Your task to perform on an android device: turn off improve location accuracy Image 0: 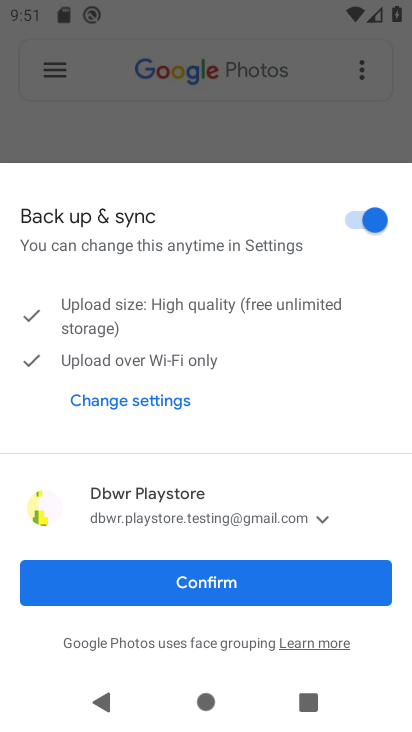
Step 0: press home button
Your task to perform on an android device: turn off improve location accuracy Image 1: 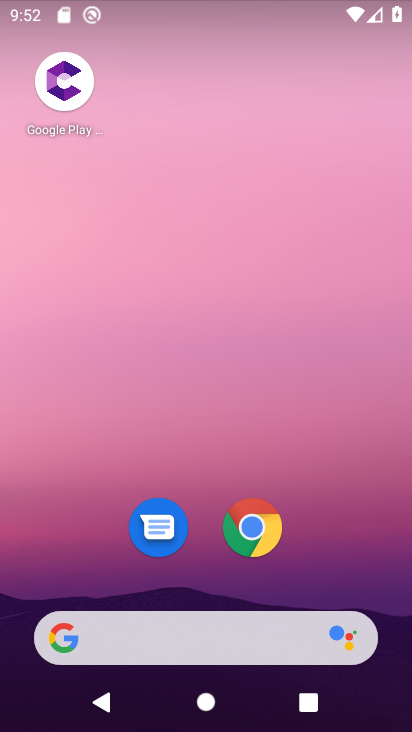
Step 1: drag from (338, 543) to (309, 104)
Your task to perform on an android device: turn off improve location accuracy Image 2: 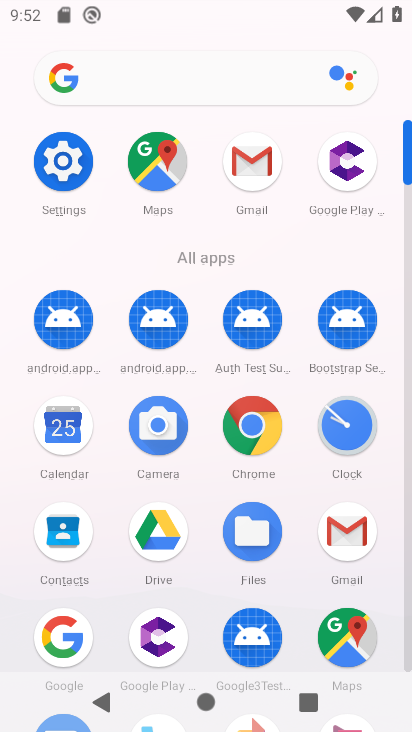
Step 2: click (72, 170)
Your task to perform on an android device: turn off improve location accuracy Image 3: 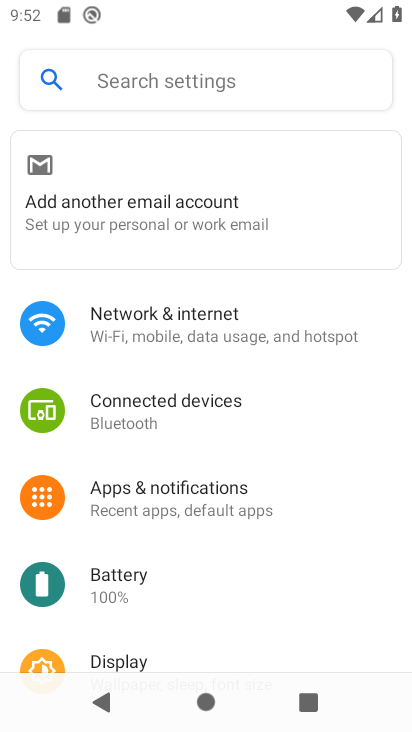
Step 3: drag from (237, 652) to (186, 188)
Your task to perform on an android device: turn off improve location accuracy Image 4: 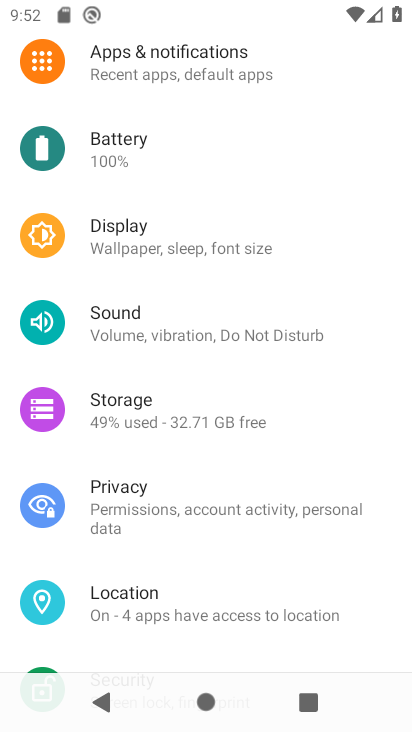
Step 4: click (159, 606)
Your task to perform on an android device: turn off improve location accuracy Image 5: 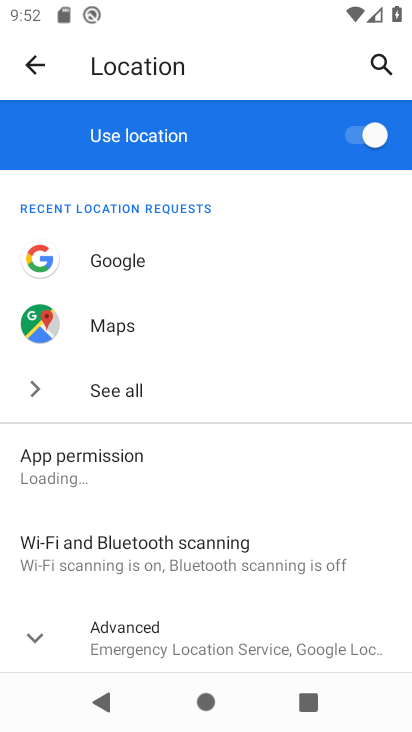
Step 5: click (176, 629)
Your task to perform on an android device: turn off improve location accuracy Image 6: 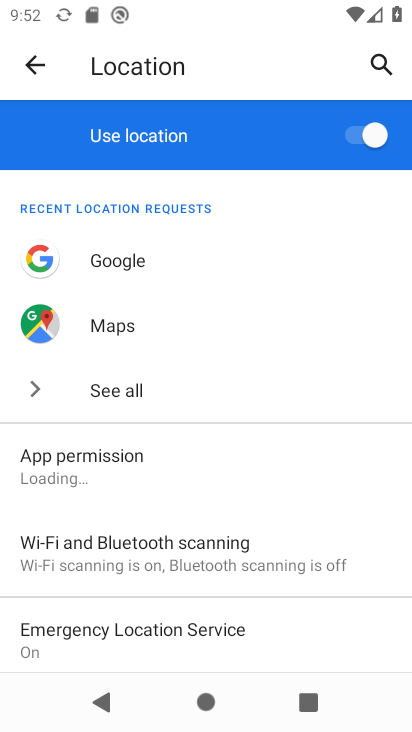
Step 6: drag from (172, 625) to (150, 406)
Your task to perform on an android device: turn off improve location accuracy Image 7: 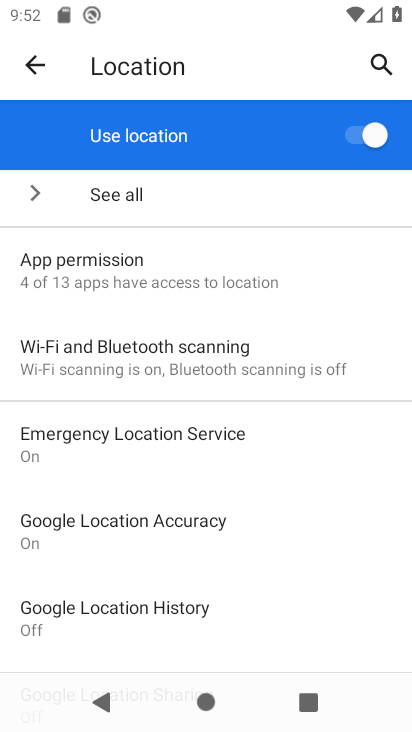
Step 7: click (160, 521)
Your task to perform on an android device: turn off improve location accuracy Image 8: 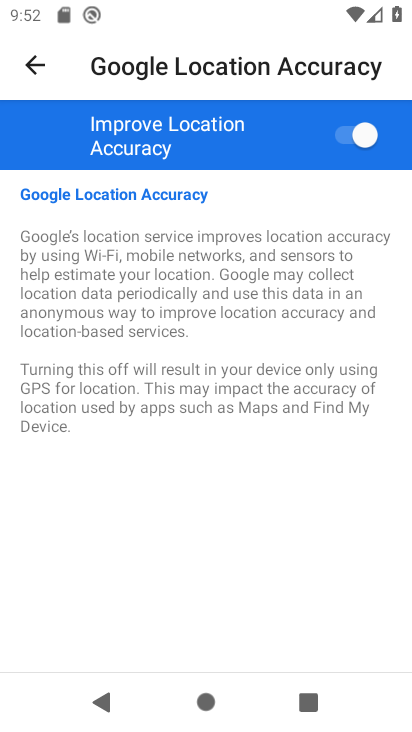
Step 8: click (367, 146)
Your task to perform on an android device: turn off improve location accuracy Image 9: 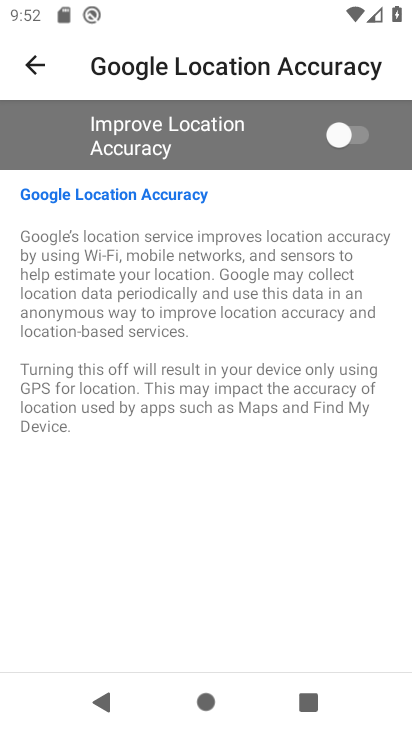
Step 9: task complete